Your task to perform on an android device: clear history in the chrome app Image 0: 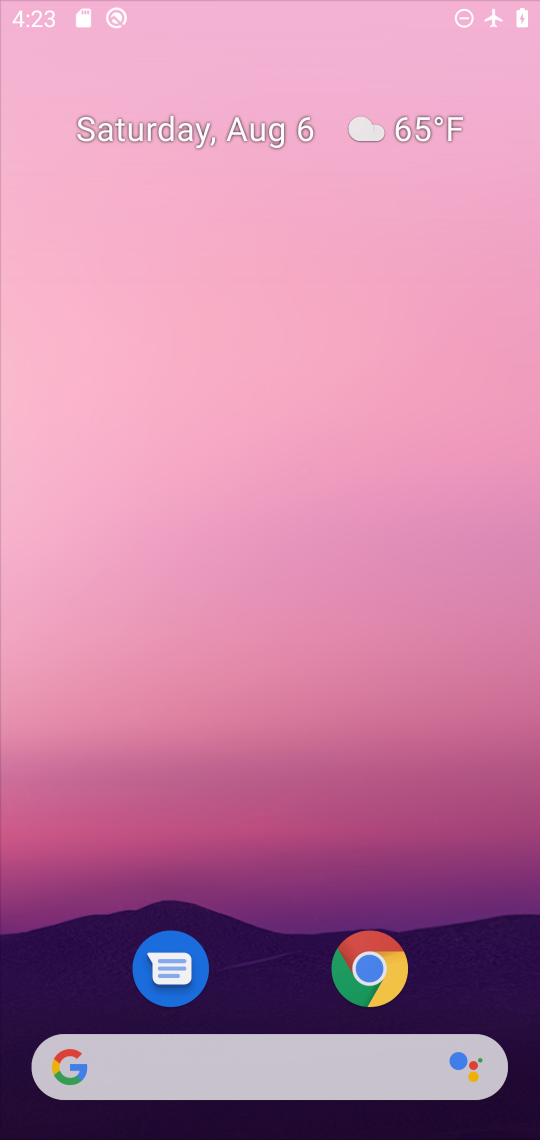
Step 0: drag from (485, 961) to (537, 166)
Your task to perform on an android device: clear history in the chrome app Image 1: 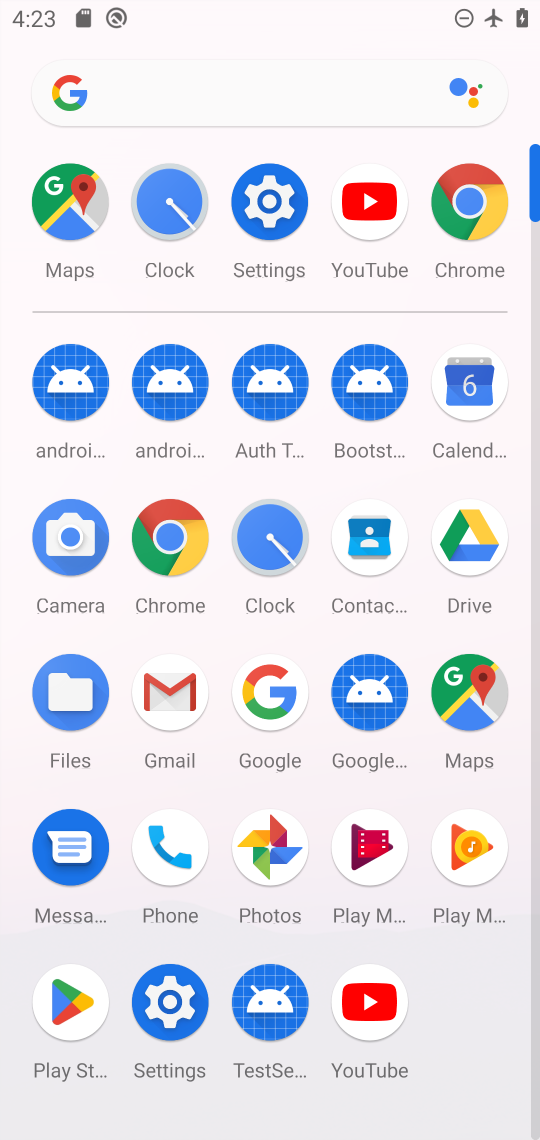
Step 1: click (175, 536)
Your task to perform on an android device: clear history in the chrome app Image 2: 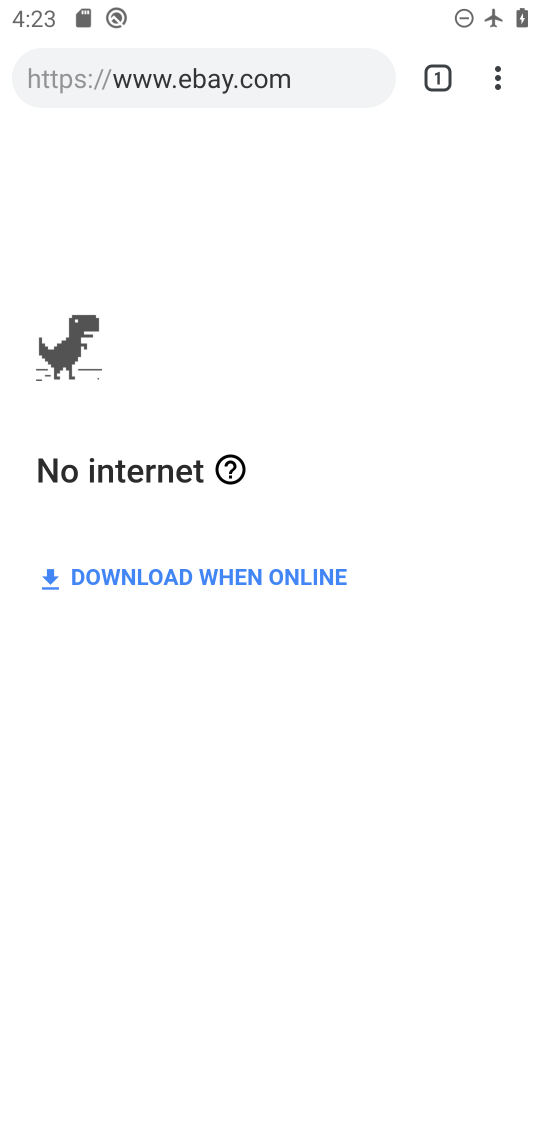
Step 2: drag from (484, 69) to (223, 866)
Your task to perform on an android device: clear history in the chrome app Image 3: 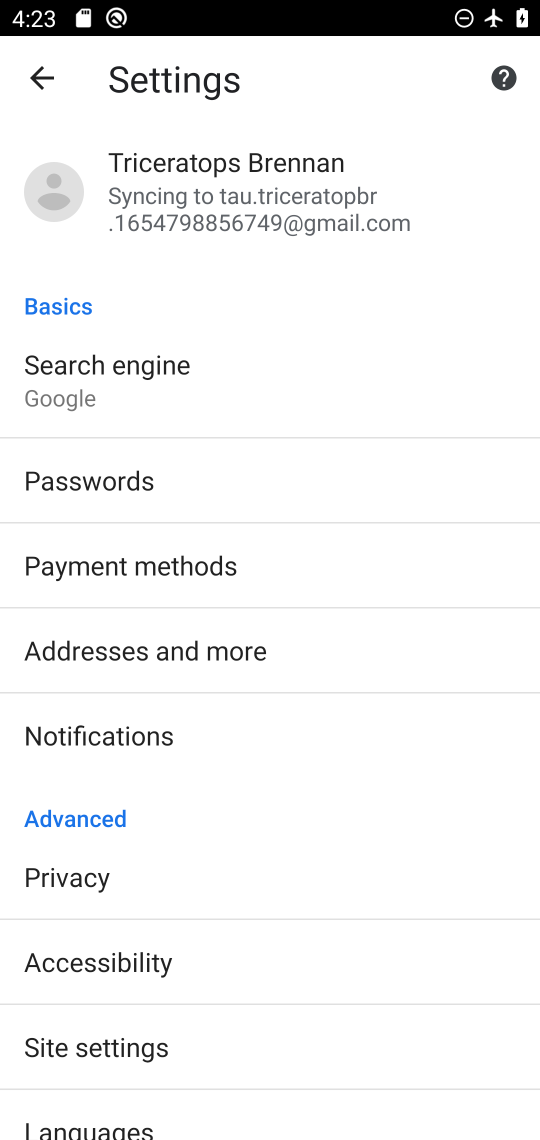
Step 3: click (30, 66)
Your task to perform on an android device: clear history in the chrome app Image 4: 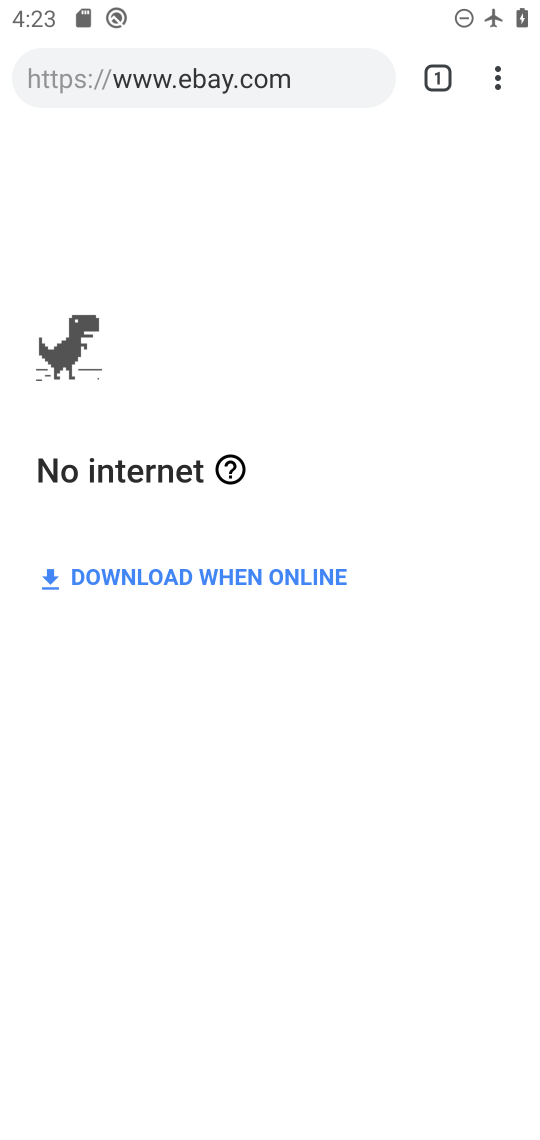
Step 4: drag from (511, 67) to (229, 427)
Your task to perform on an android device: clear history in the chrome app Image 5: 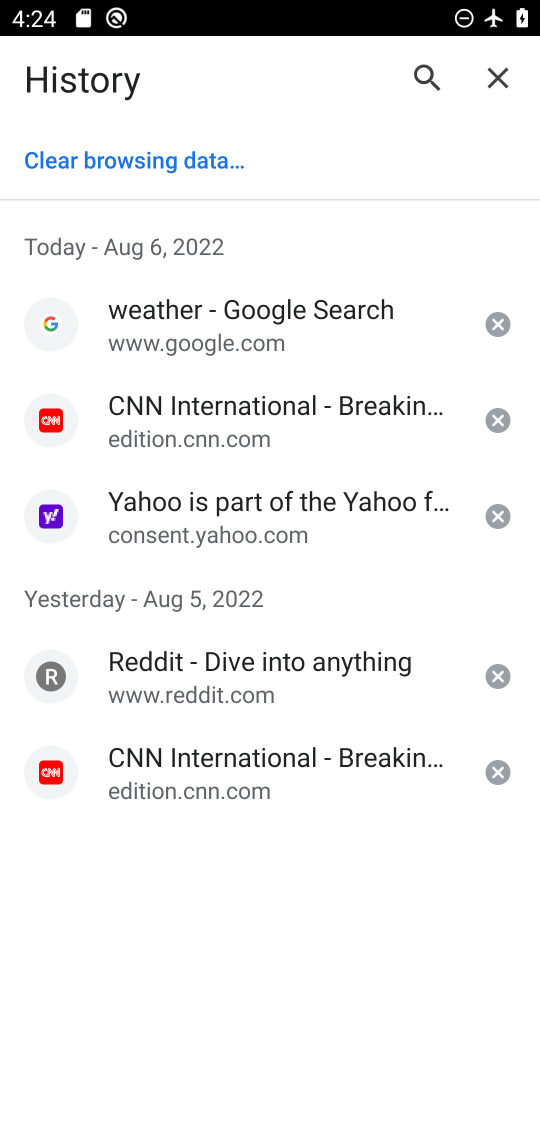
Step 5: click (165, 152)
Your task to perform on an android device: clear history in the chrome app Image 6: 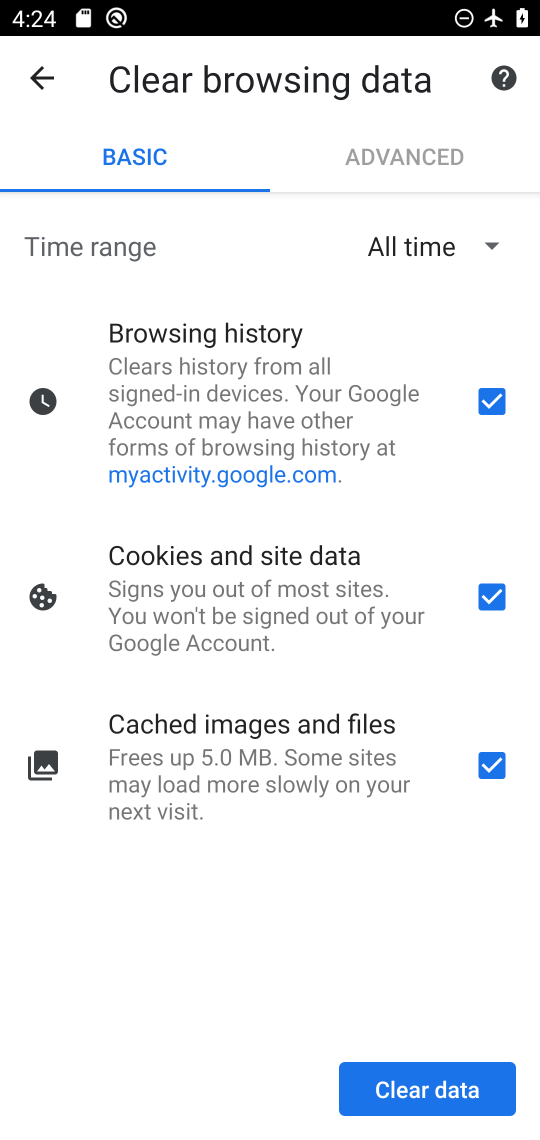
Step 6: click (436, 1102)
Your task to perform on an android device: clear history in the chrome app Image 7: 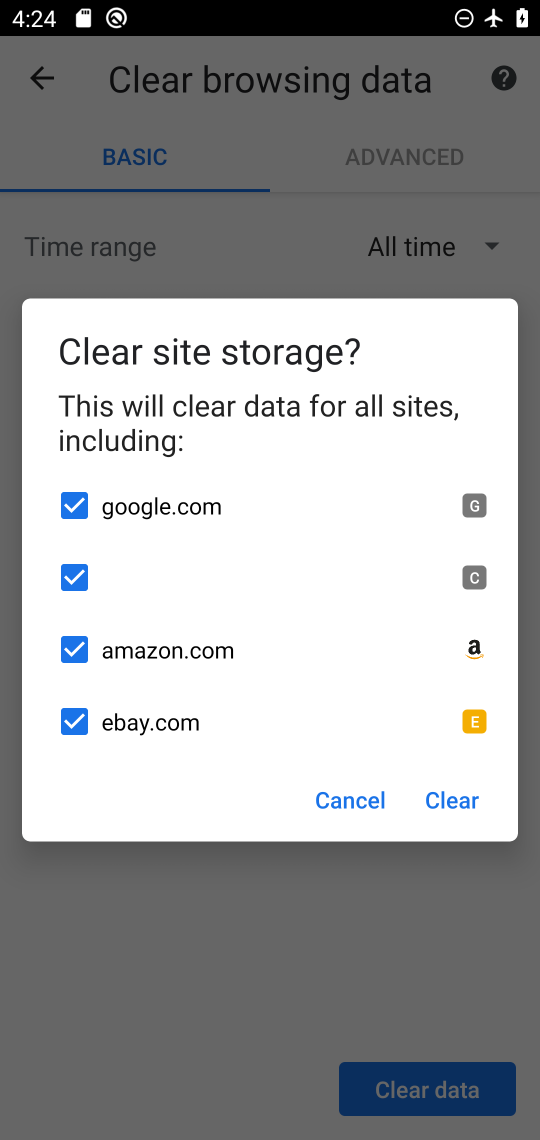
Step 7: click (460, 797)
Your task to perform on an android device: clear history in the chrome app Image 8: 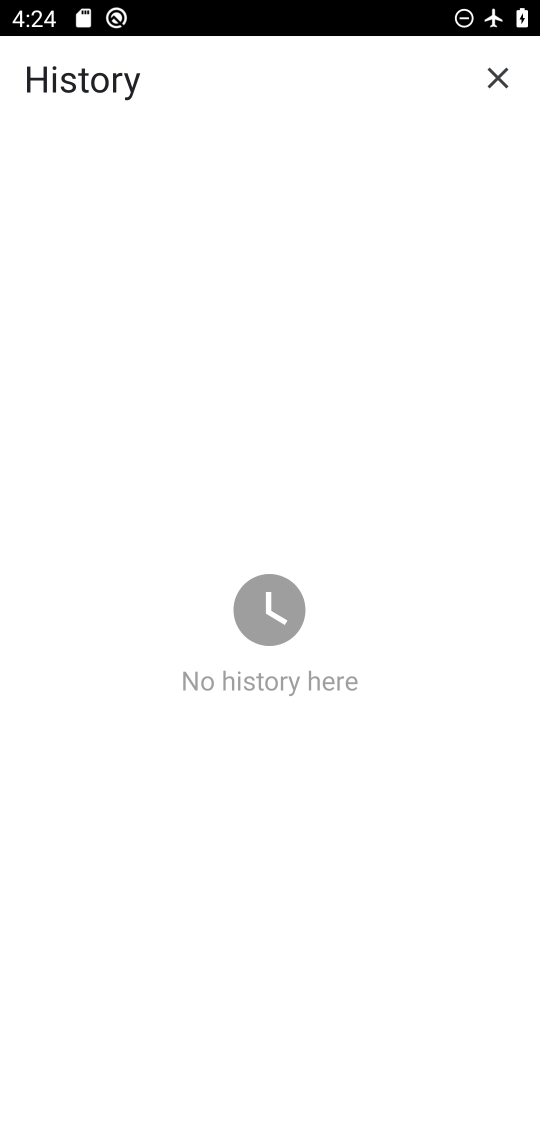
Step 8: task complete